Your task to perform on an android device: Is it going to rain today? Image 0: 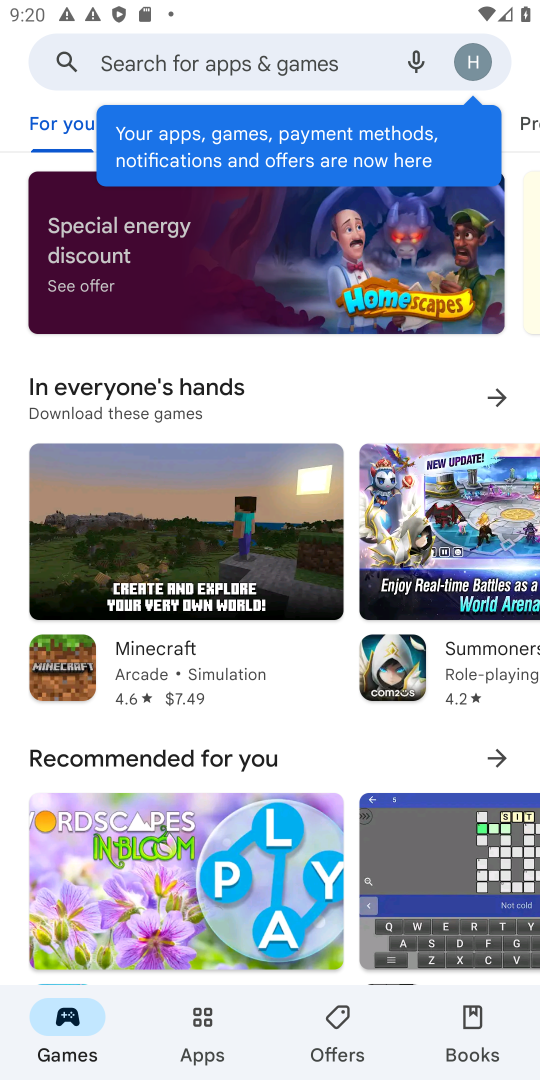
Step 0: press home button
Your task to perform on an android device: Is it going to rain today? Image 1: 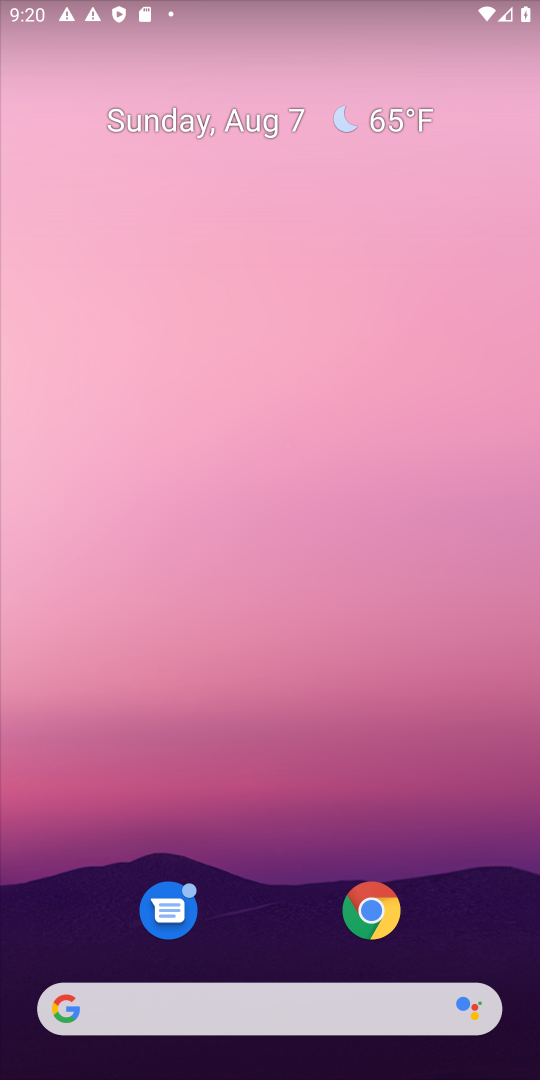
Step 1: drag from (274, 1001) to (274, 349)
Your task to perform on an android device: Is it going to rain today? Image 2: 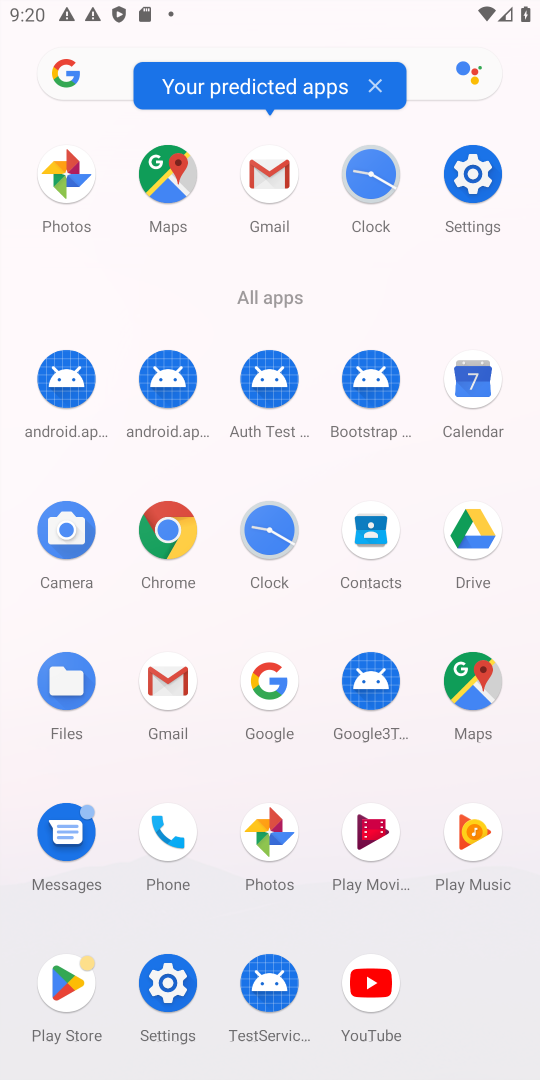
Step 2: click (272, 692)
Your task to perform on an android device: Is it going to rain today? Image 3: 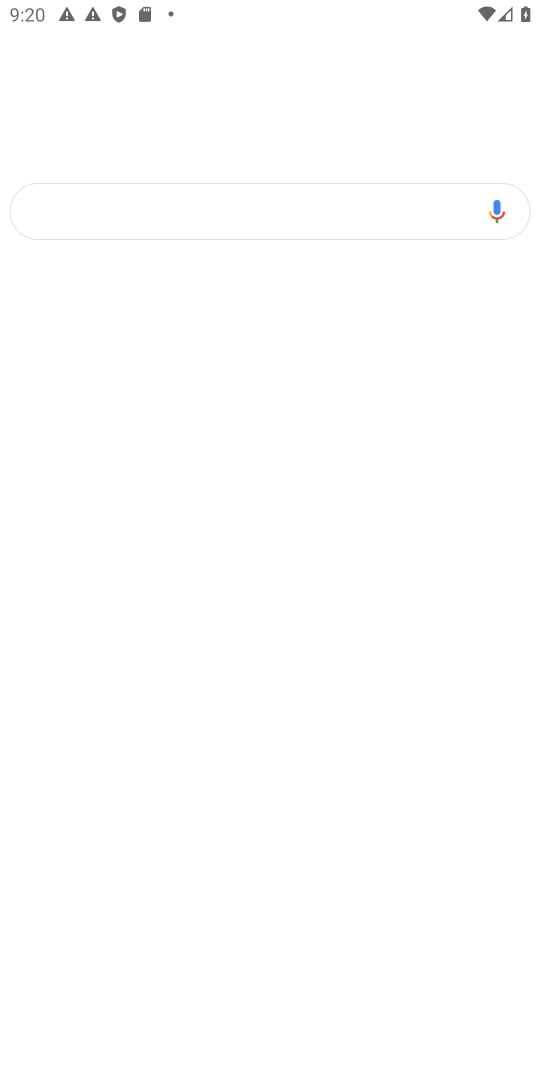
Step 3: click (263, 692)
Your task to perform on an android device: Is it going to rain today? Image 4: 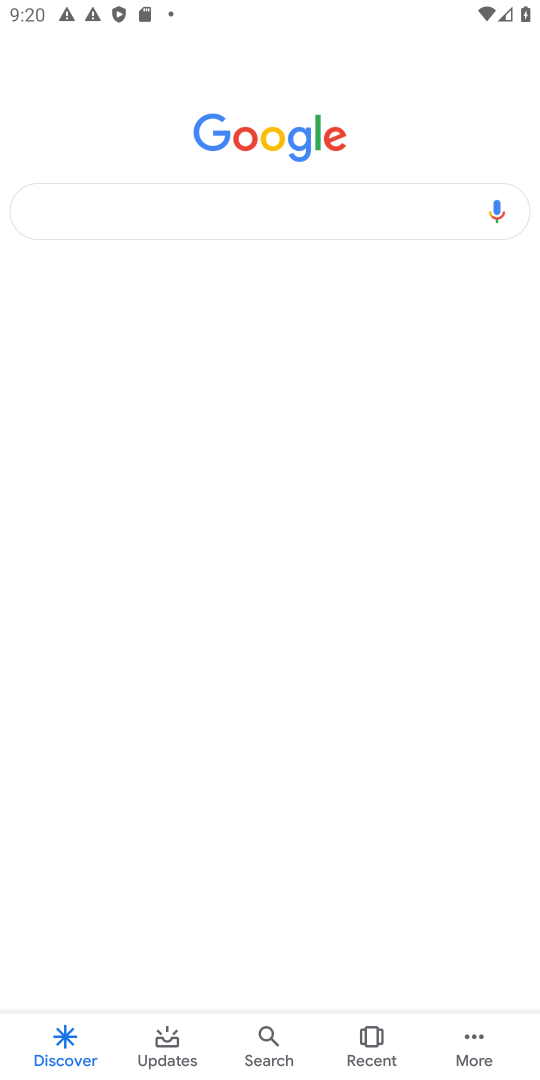
Step 4: click (274, 205)
Your task to perform on an android device: Is it going to rain today? Image 5: 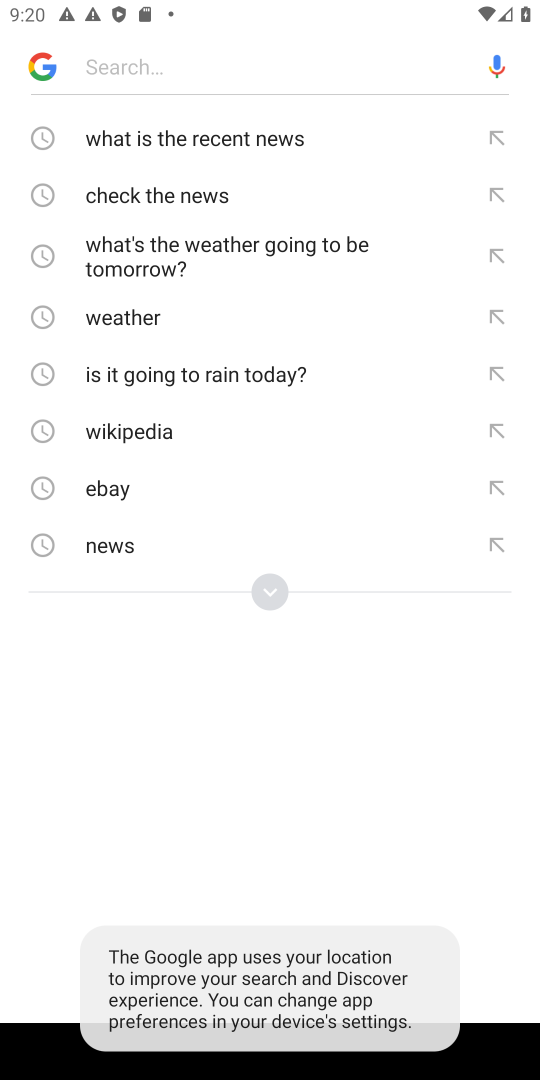
Step 5: click (146, 368)
Your task to perform on an android device: Is it going to rain today? Image 6: 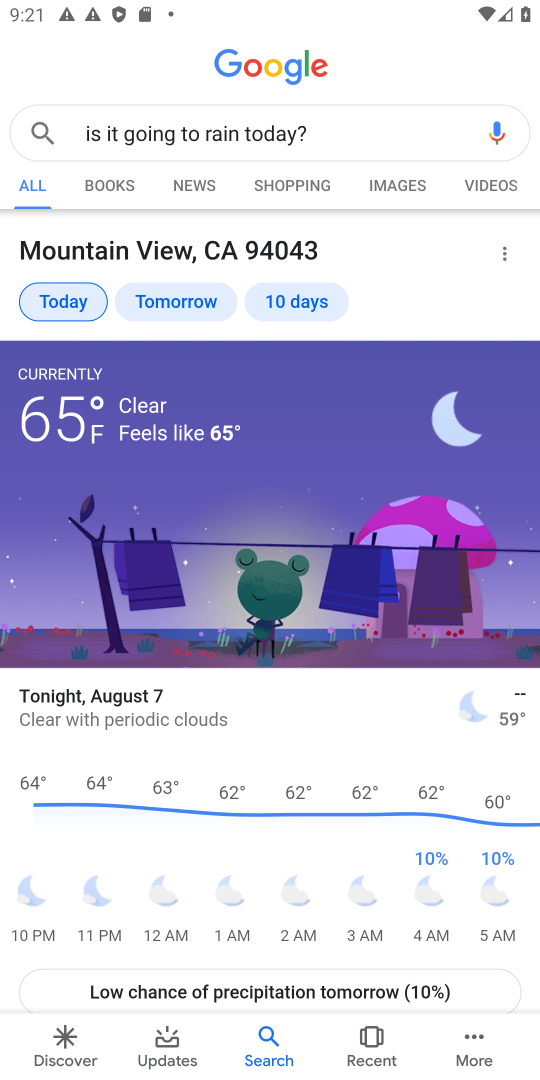
Step 6: task complete